Your task to perform on an android device: all mails in gmail Image 0: 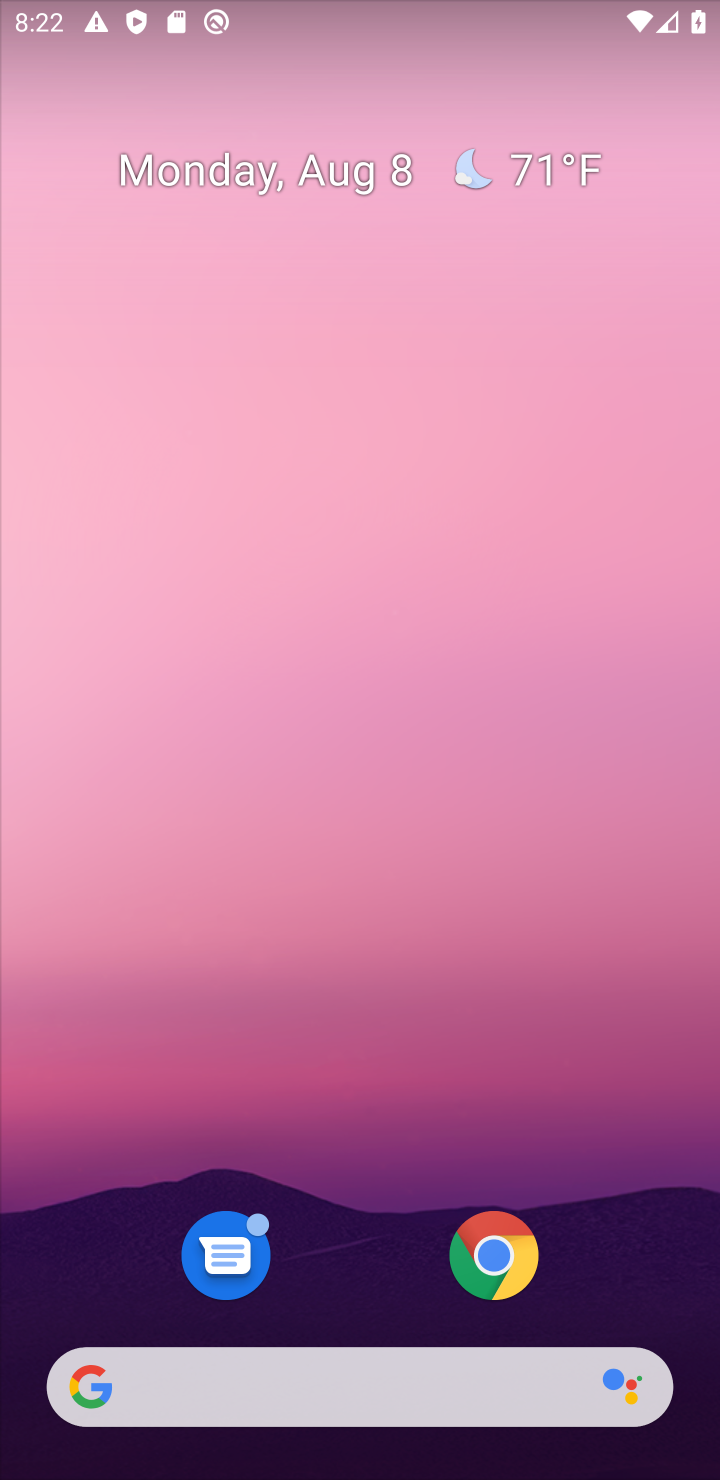
Step 0: press home button
Your task to perform on an android device: all mails in gmail Image 1: 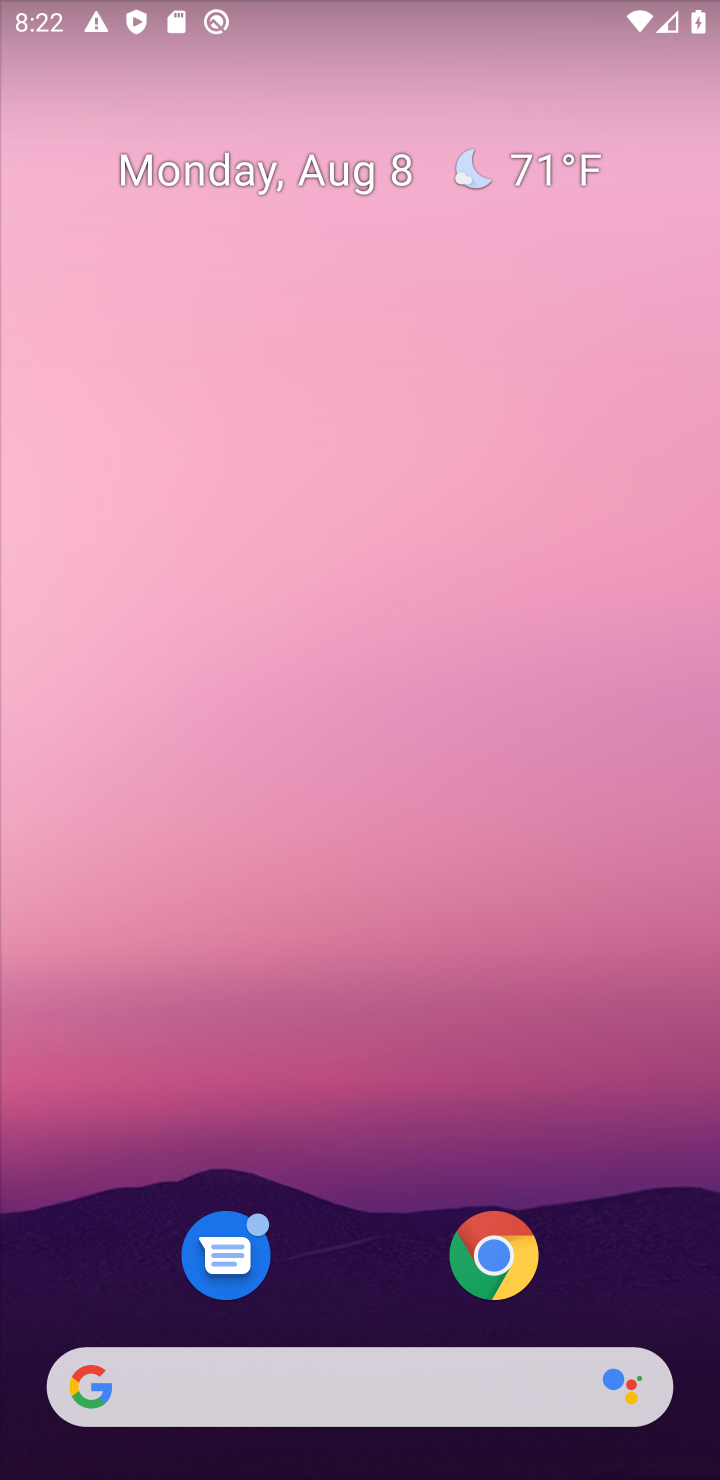
Step 1: drag from (375, 1298) to (480, 0)
Your task to perform on an android device: all mails in gmail Image 2: 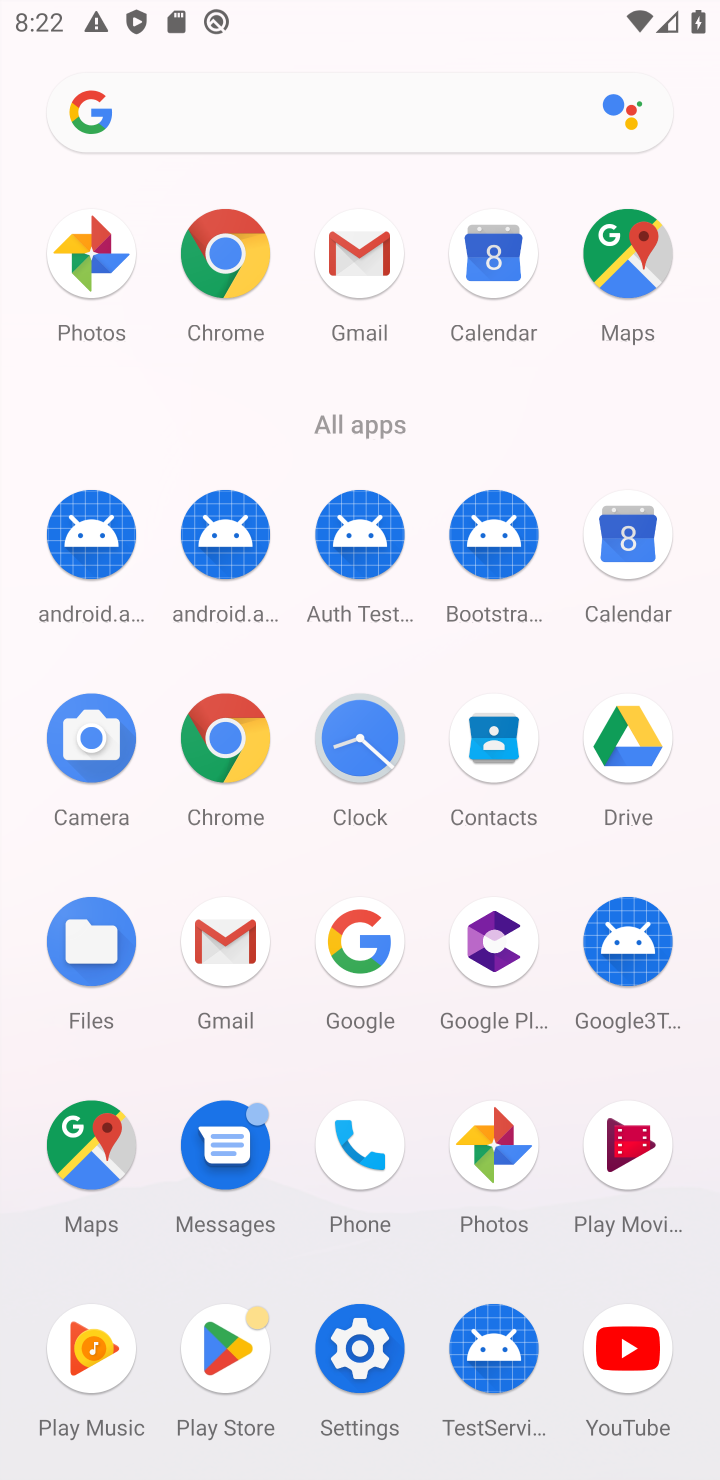
Step 2: click (360, 250)
Your task to perform on an android device: all mails in gmail Image 3: 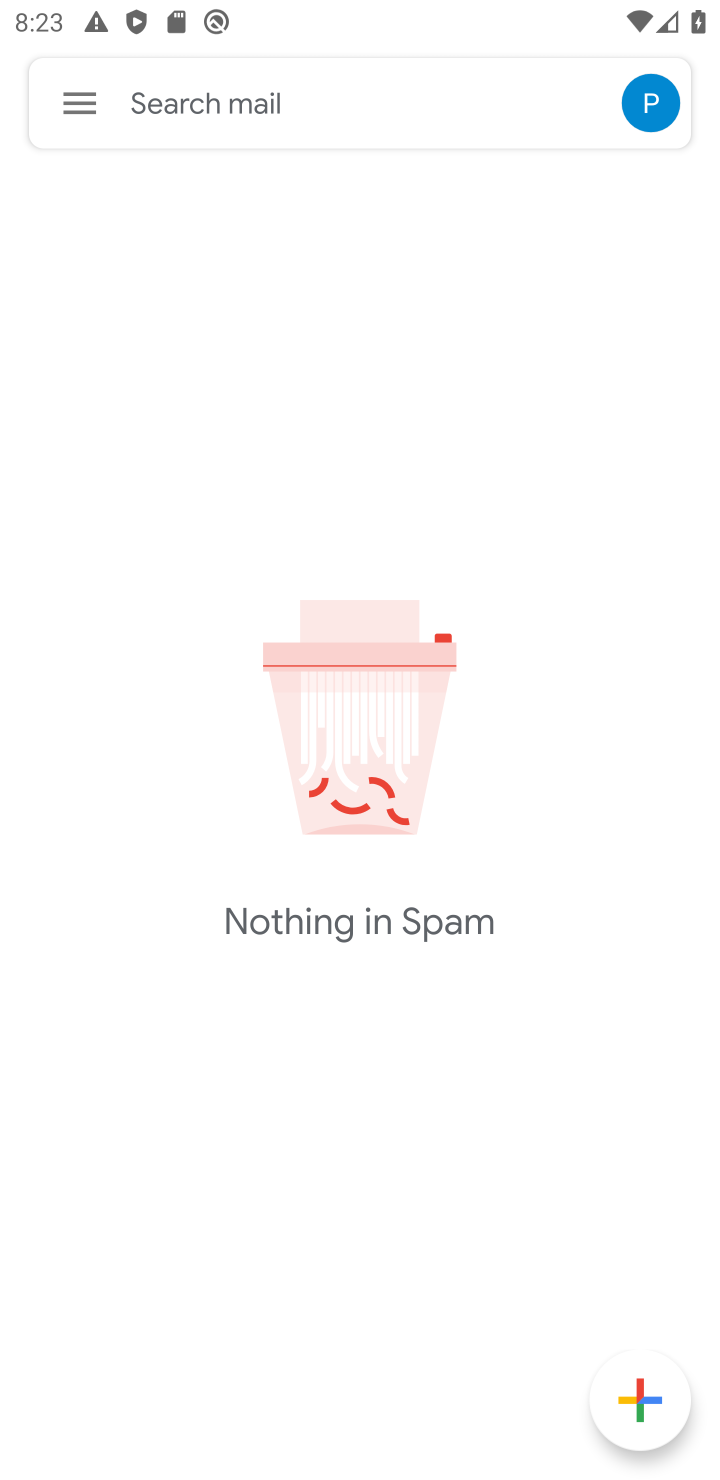
Step 3: click (83, 89)
Your task to perform on an android device: all mails in gmail Image 4: 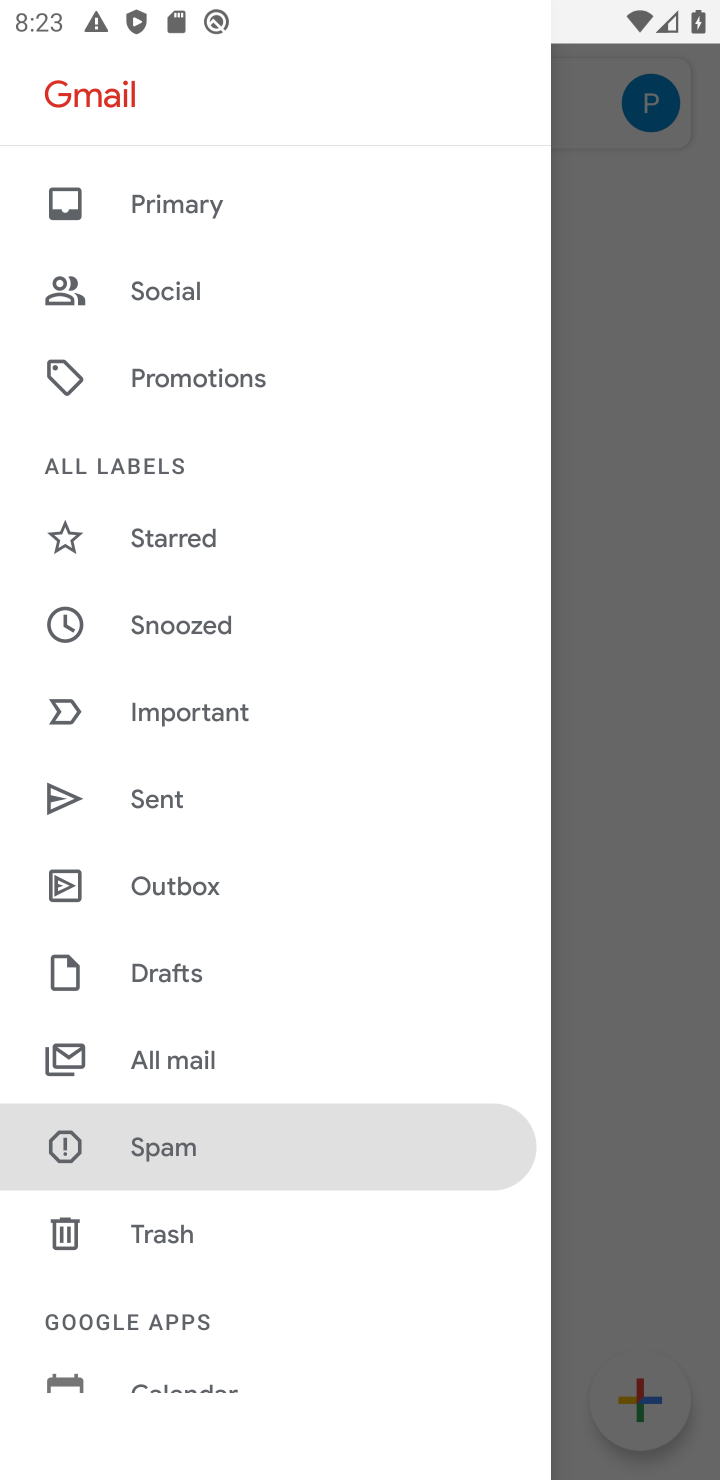
Step 4: click (172, 1072)
Your task to perform on an android device: all mails in gmail Image 5: 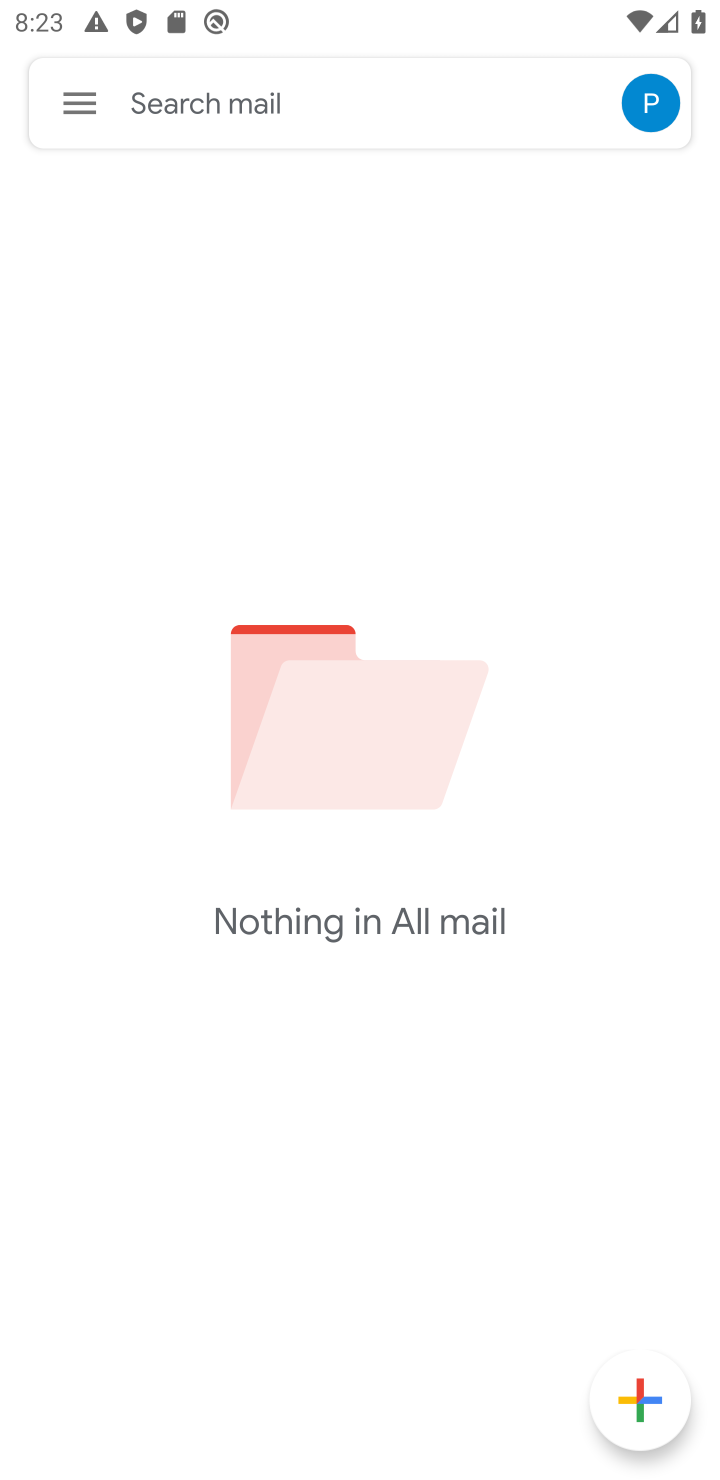
Step 5: task complete